Your task to perform on an android device: turn off wifi Image 0: 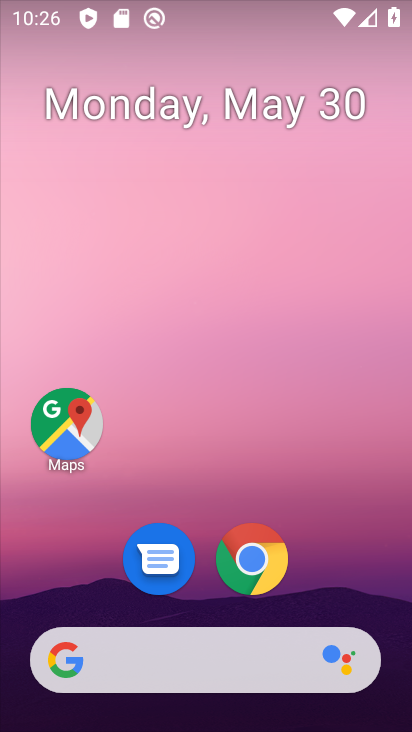
Step 0: drag from (347, 596) to (232, 113)
Your task to perform on an android device: turn off wifi Image 1: 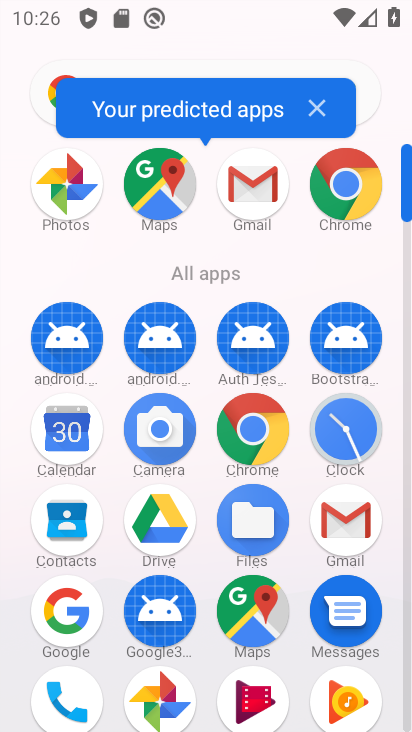
Step 1: click (406, 718)
Your task to perform on an android device: turn off wifi Image 2: 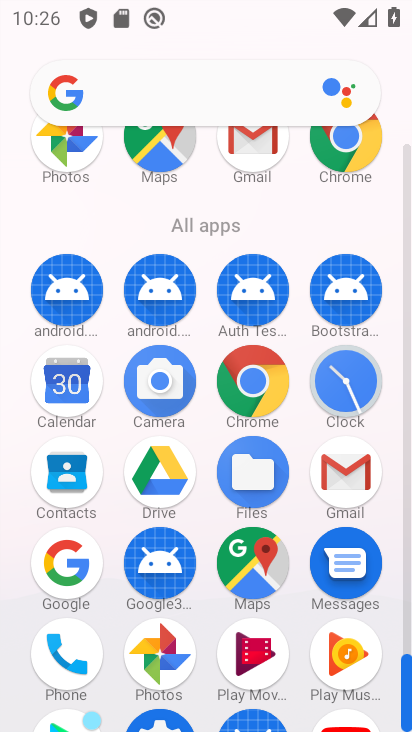
Step 2: click (159, 721)
Your task to perform on an android device: turn off wifi Image 3: 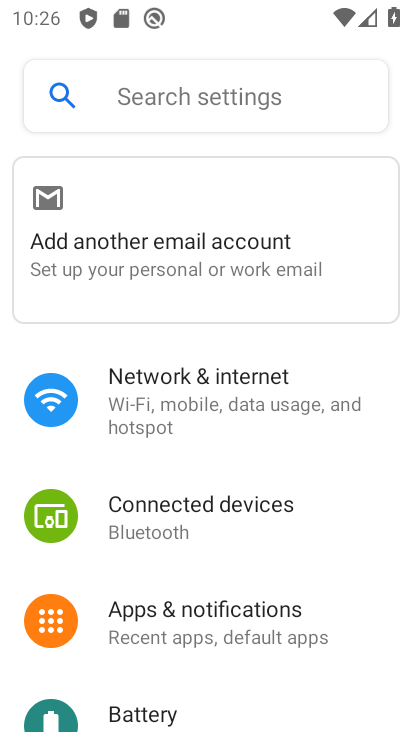
Step 3: click (271, 405)
Your task to perform on an android device: turn off wifi Image 4: 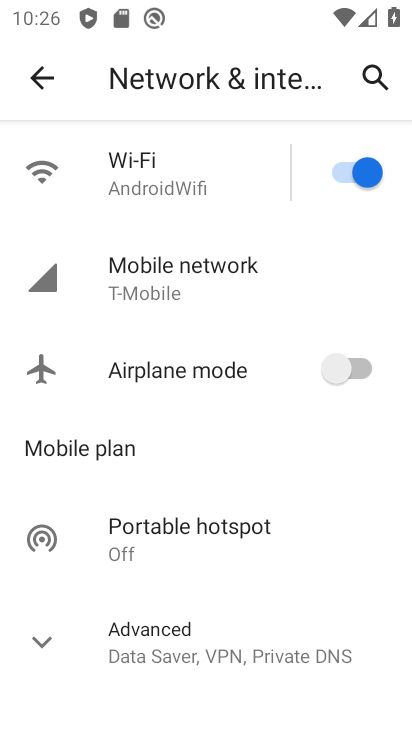
Step 4: click (357, 175)
Your task to perform on an android device: turn off wifi Image 5: 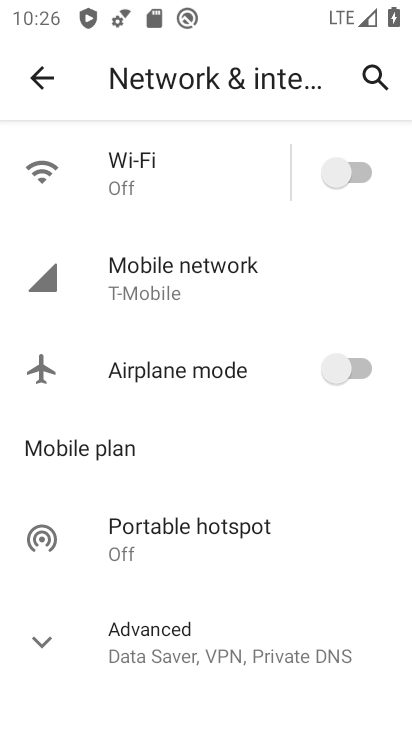
Step 5: task complete